Your task to perform on an android device: Go to location settings Image 0: 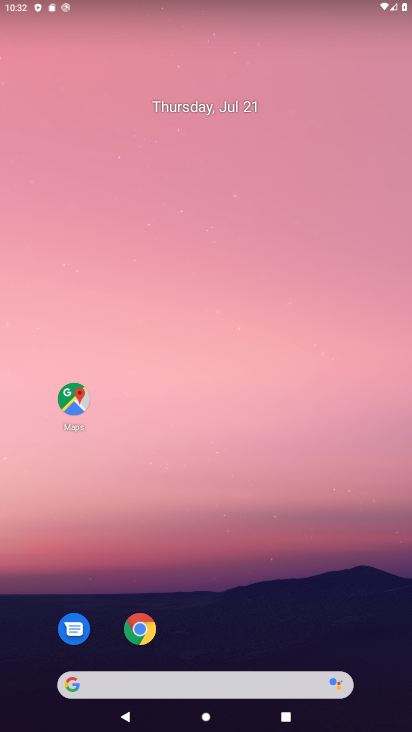
Step 0: drag from (205, 584) to (196, 78)
Your task to perform on an android device: Go to location settings Image 1: 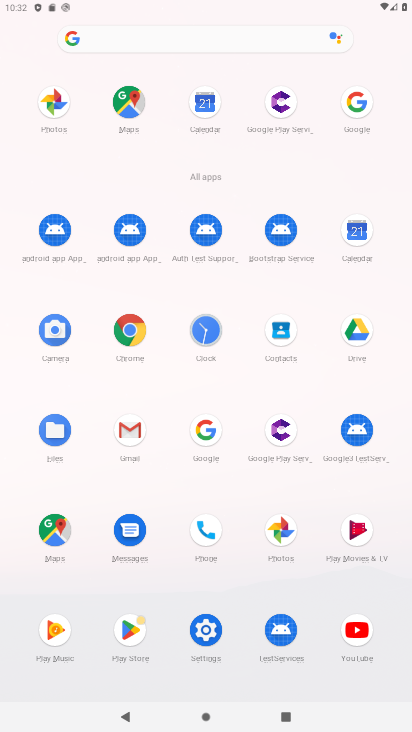
Step 1: click (205, 636)
Your task to perform on an android device: Go to location settings Image 2: 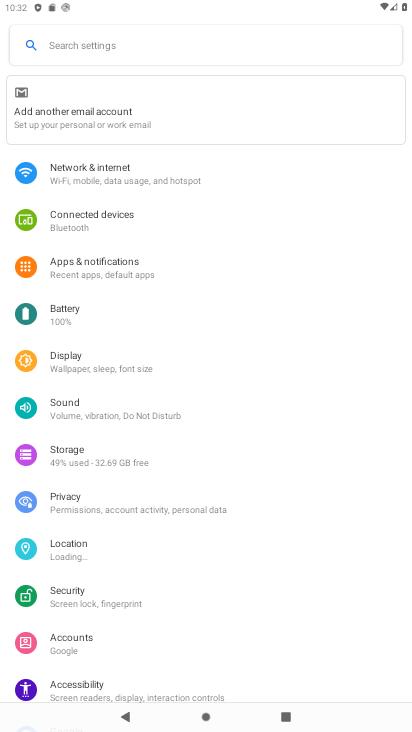
Step 2: click (88, 543)
Your task to perform on an android device: Go to location settings Image 3: 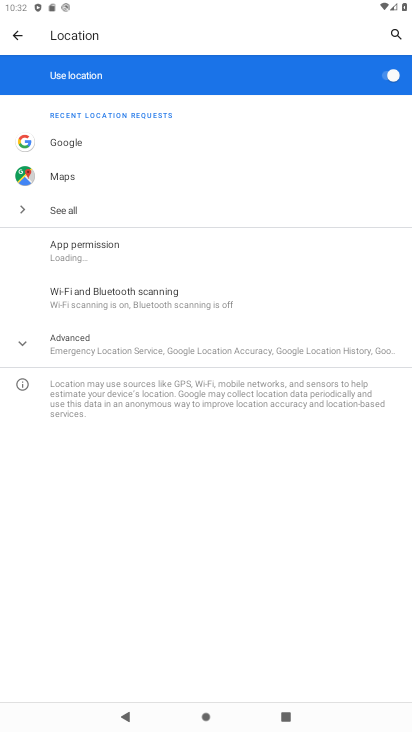
Step 3: task complete